Your task to perform on an android device: Empty the shopping cart on bestbuy. Add amazon basics triple a to the cart on bestbuy, then select checkout. Image 0: 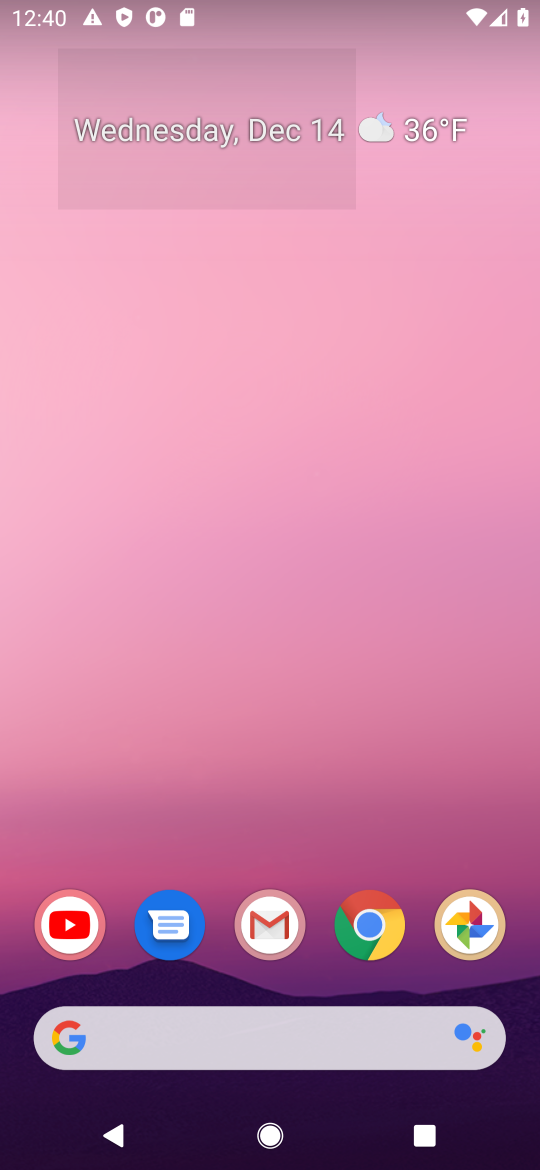
Step 0: press home button
Your task to perform on an android device: Empty the shopping cart on bestbuy. Add amazon basics triple a to the cart on bestbuy, then select checkout. Image 1: 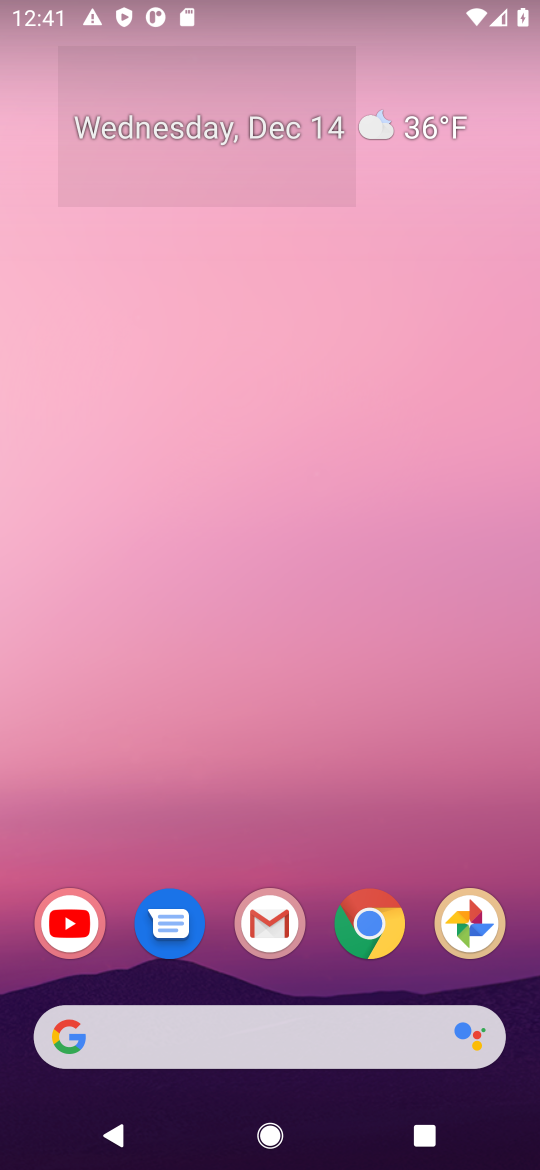
Step 1: click (336, 942)
Your task to perform on an android device: Empty the shopping cart on bestbuy. Add amazon basics triple a to the cart on bestbuy, then select checkout. Image 2: 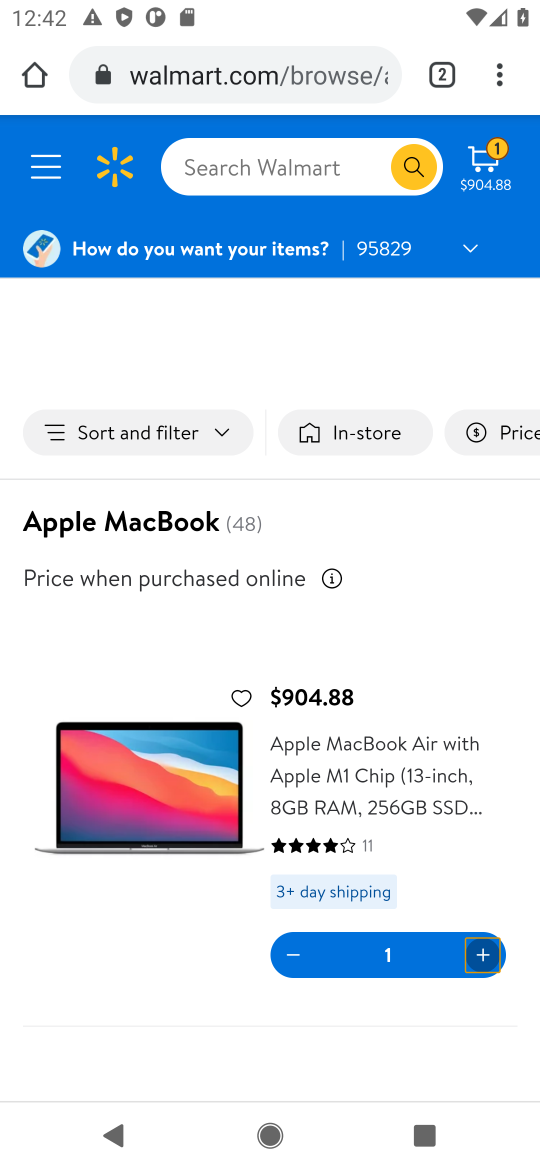
Step 2: click (220, 71)
Your task to perform on an android device: Empty the shopping cart on bestbuy. Add amazon basics triple a to the cart on bestbuy, then select checkout. Image 3: 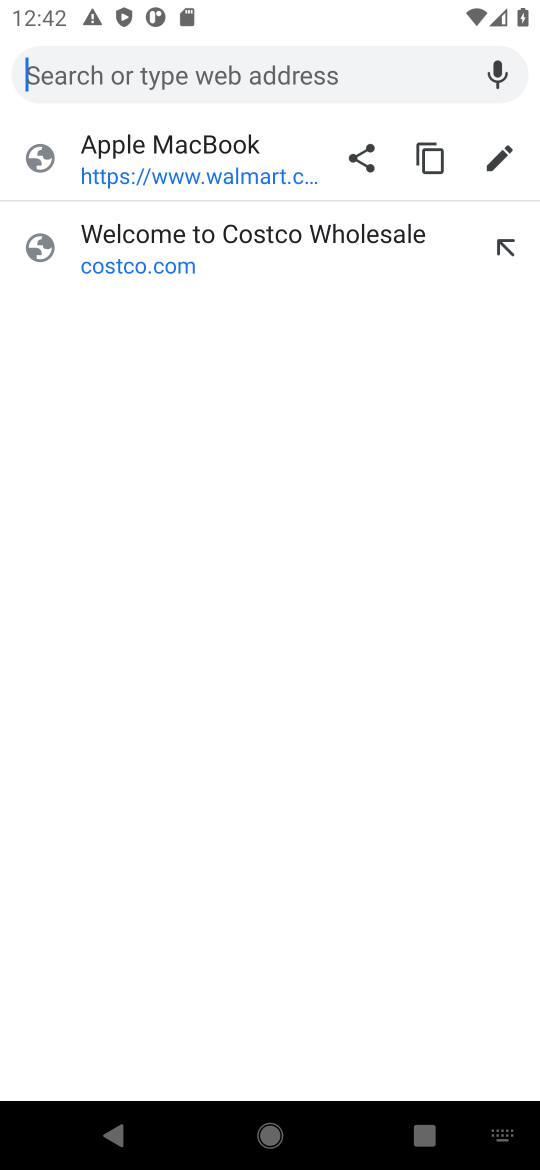
Step 3: type "bestbuy"
Your task to perform on an android device: Empty the shopping cart on bestbuy. Add amazon basics triple a to the cart on bestbuy, then select checkout. Image 4: 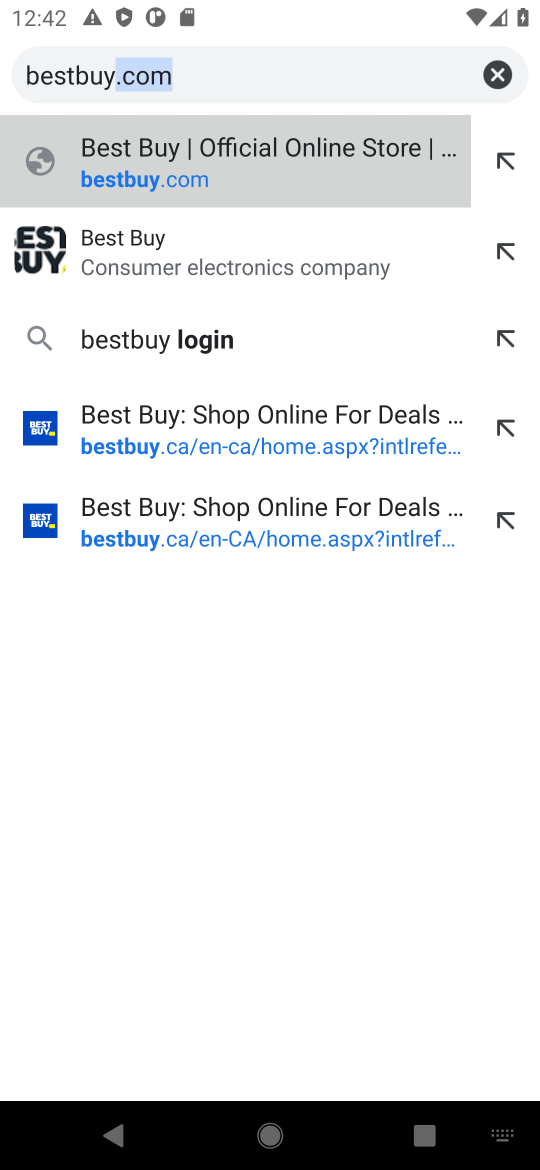
Step 4: click (163, 187)
Your task to perform on an android device: Empty the shopping cart on bestbuy. Add amazon basics triple a to the cart on bestbuy, then select checkout. Image 5: 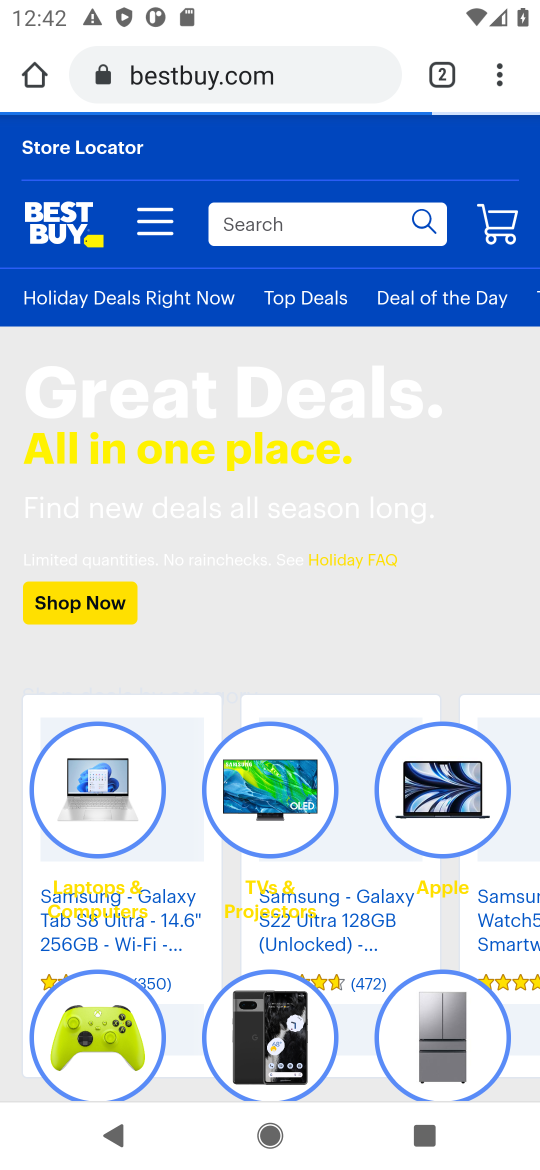
Step 5: click (265, 220)
Your task to perform on an android device: Empty the shopping cart on bestbuy. Add amazon basics triple a to the cart on bestbuy, then select checkout. Image 6: 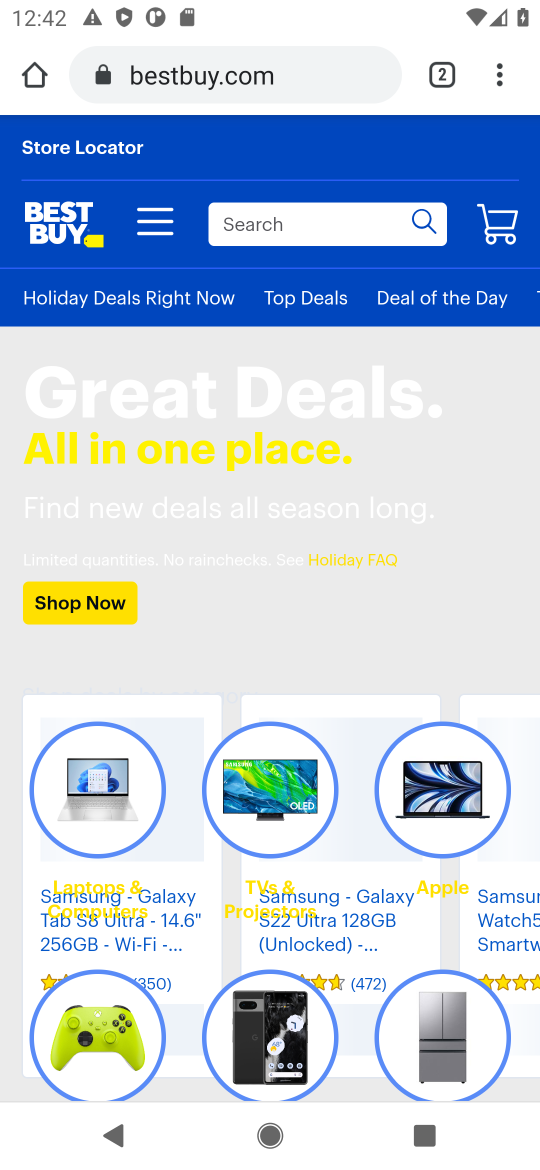
Step 6: click (265, 220)
Your task to perform on an android device: Empty the shopping cart on bestbuy. Add amazon basics triple a to the cart on bestbuy, then select checkout. Image 7: 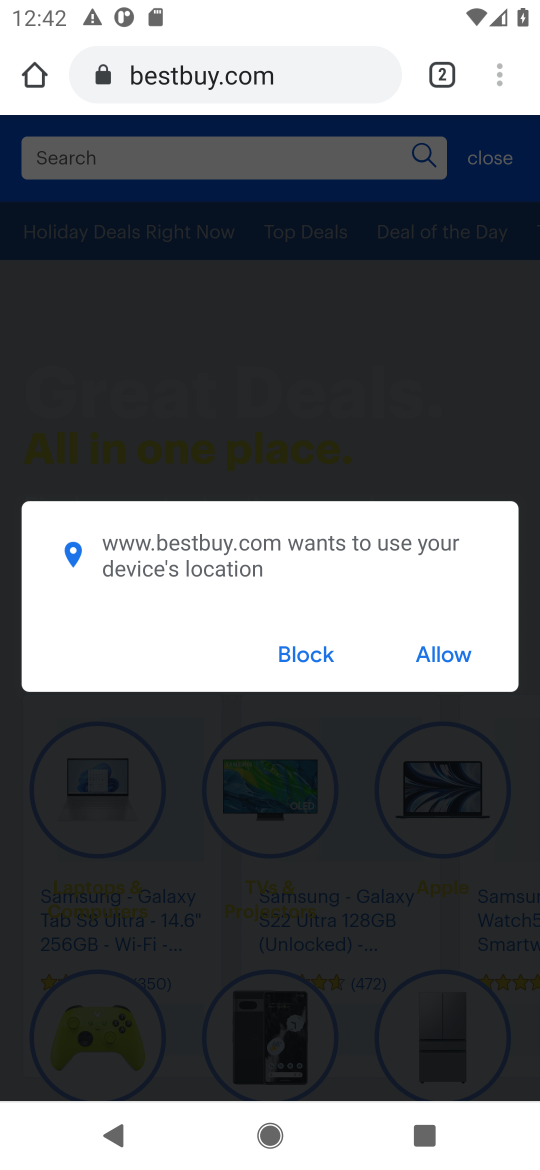
Step 7: click (457, 663)
Your task to perform on an android device: Empty the shopping cart on bestbuy. Add amazon basics triple a to the cart on bestbuy, then select checkout. Image 8: 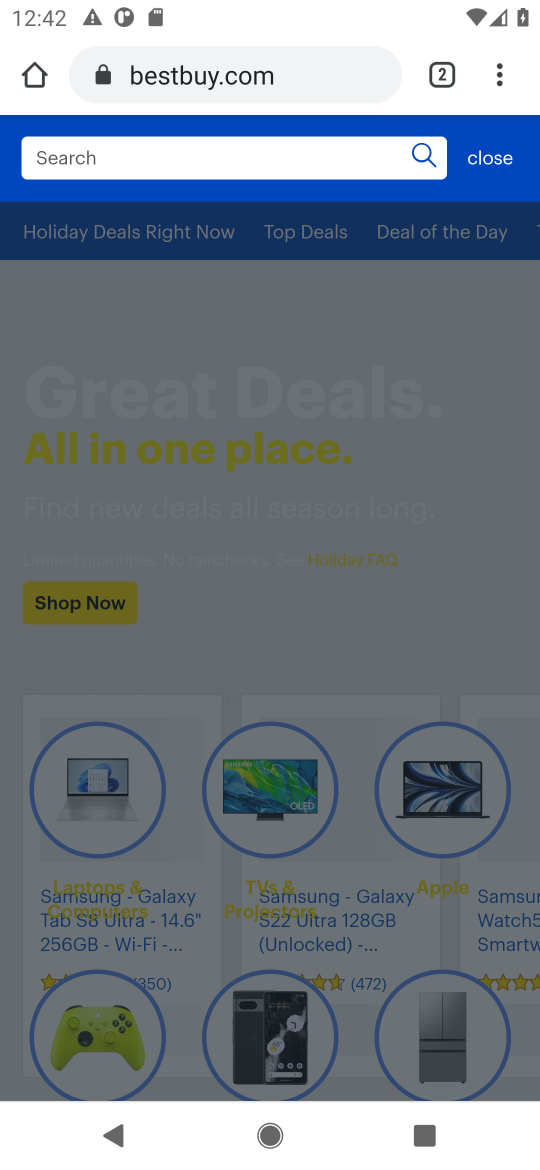
Step 8: click (60, 154)
Your task to perform on an android device: Empty the shopping cart on bestbuy. Add amazon basics triple a to the cart on bestbuy, then select checkout. Image 9: 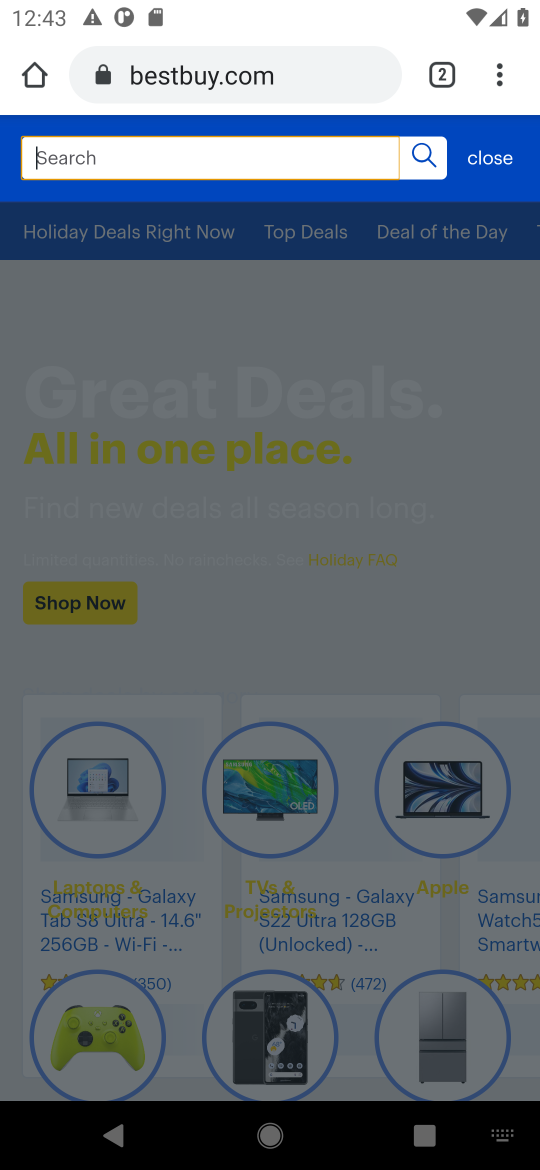
Step 9: type "amazon basic triple a"
Your task to perform on an android device: Empty the shopping cart on bestbuy. Add amazon basics triple a to the cart on bestbuy, then select checkout. Image 10: 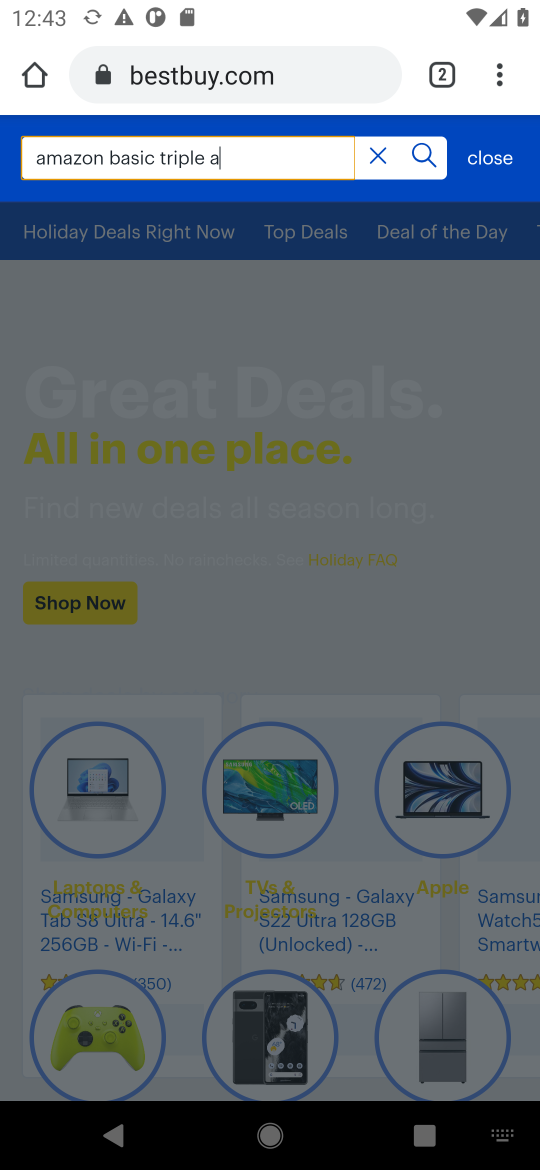
Step 10: click (429, 164)
Your task to perform on an android device: Empty the shopping cart on bestbuy. Add amazon basics triple a to the cart on bestbuy, then select checkout. Image 11: 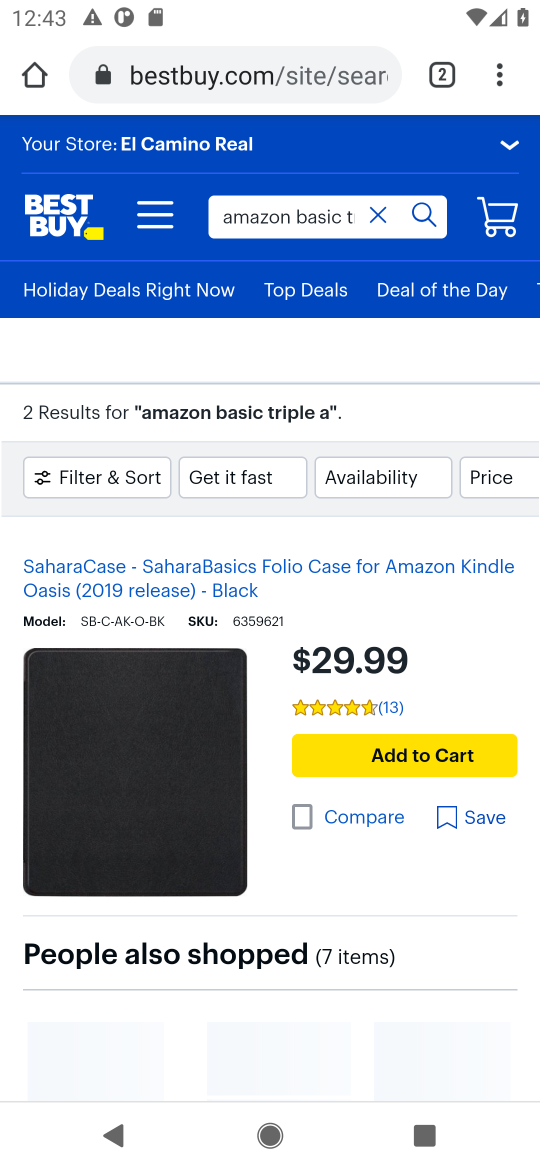
Step 11: click (271, 1083)
Your task to perform on an android device: Empty the shopping cart on bestbuy. Add amazon basics triple a to the cart on bestbuy, then select checkout. Image 12: 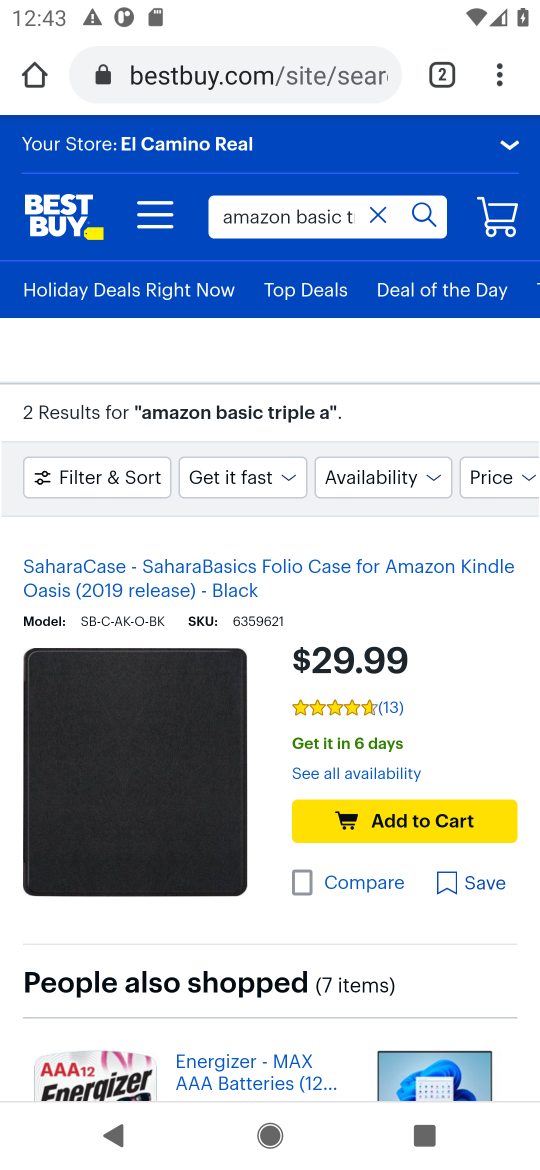
Step 12: drag from (271, 1083) to (321, 616)
Your task to perform on an android device: Empty the shopping cart on bestbuy. Add amazon basics triple a to the cart on bestbuy, then select checkout. Image 13: 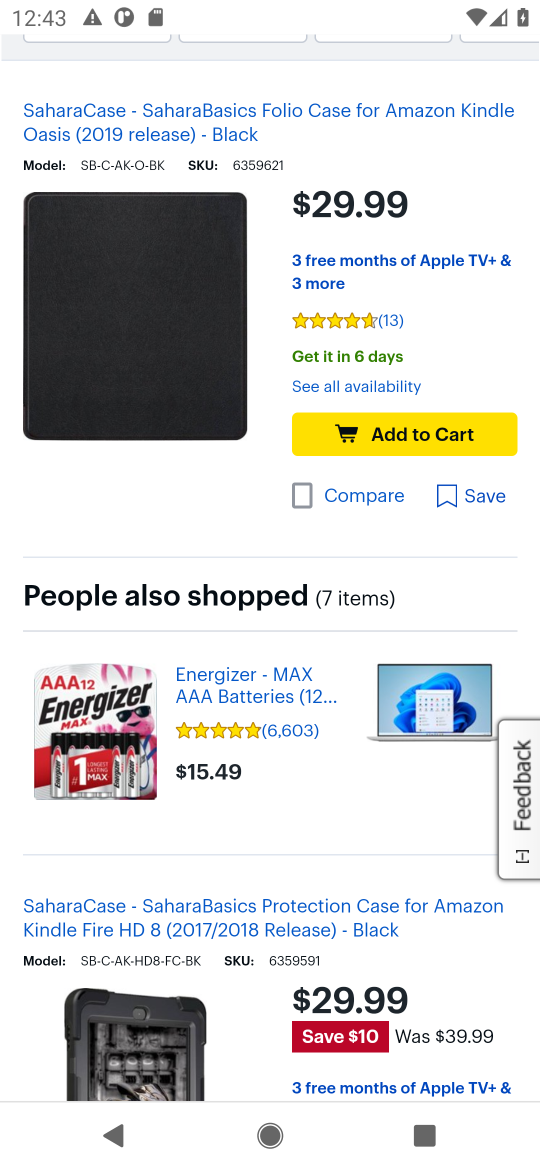
Step 13: drag from (252, 978) to (339, 580)
Your task to perform on an android device: Empty the shopping cart on bestbuy. Add amazon basics triple a to the cart on bestbuy, then select checkout. Image 14: 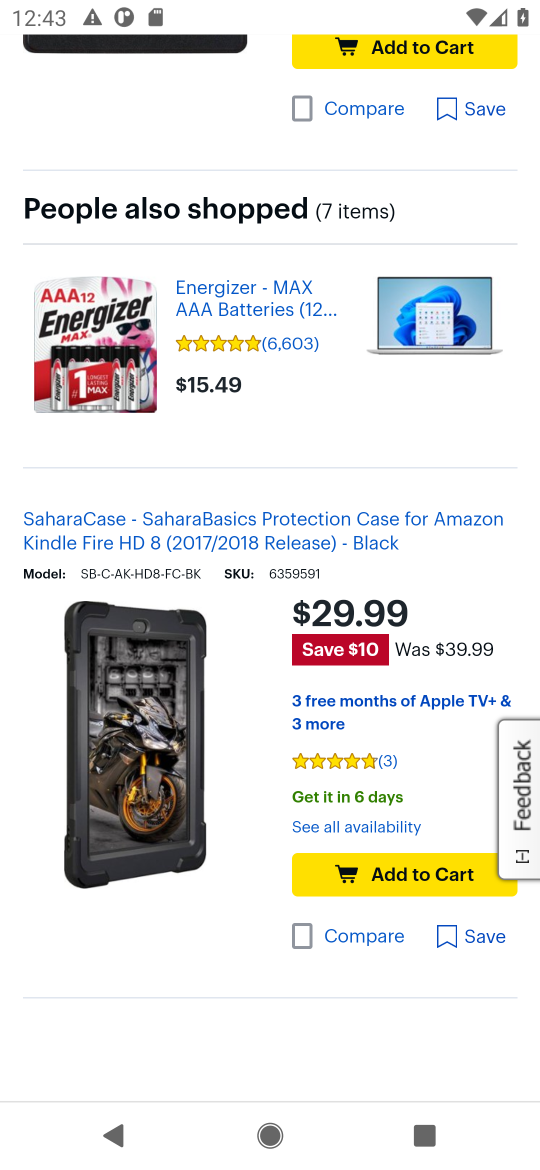
Step 14: click (226, 311)
Your task to perform on an android device: Empty the shopping cart on bestbuy. Add amazon basics triple a to the cart on bestbuy, then select checkout. Image 15: 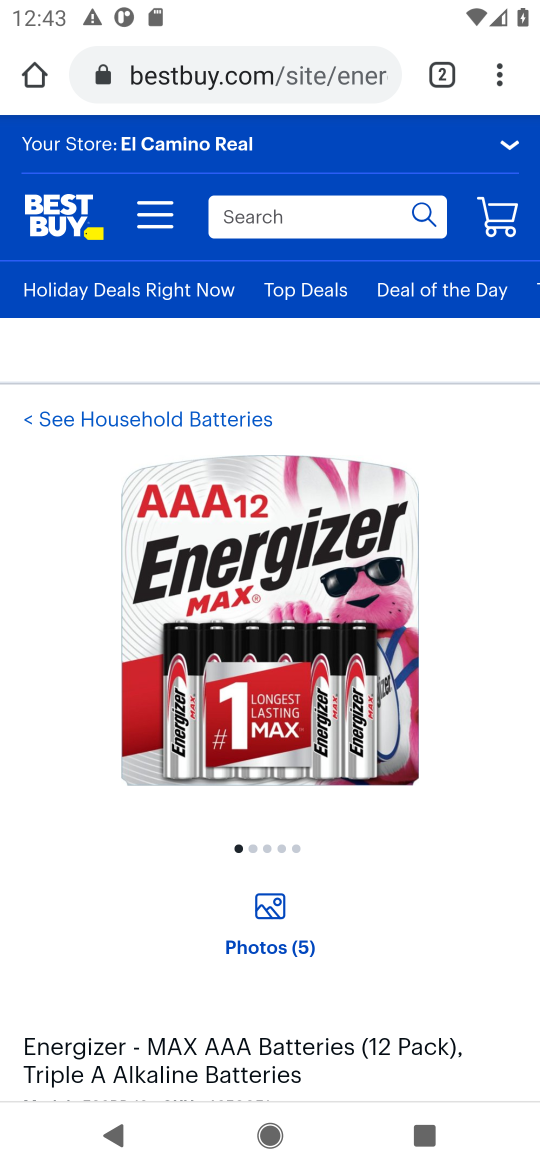
Step 15: drag from (377, 778) to (353, 569)
Your task to perform on an android device: Empty the shopping cart on bestbuy. Add amazon basics triple a to the cart on bestbuy, then select checkout. Image 16: 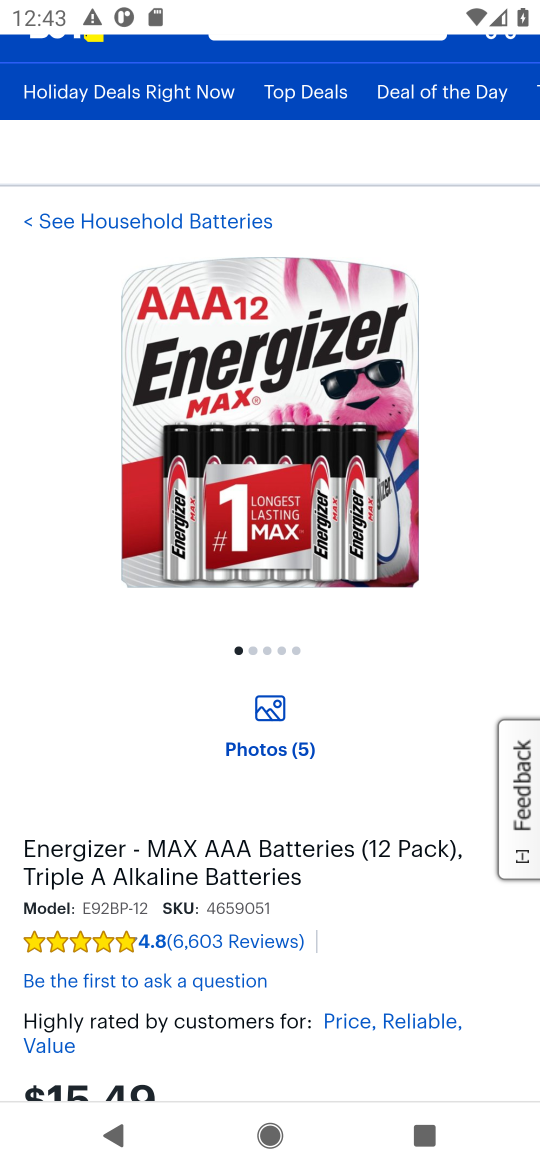
Step 16: drag from (321, 1037) to (291, 502)
Your task to perform on an android device: Empty the shopping cart on bestbuy. Add amazon basics triple a to the cart on bestbuy, then select checkout. Image 17: 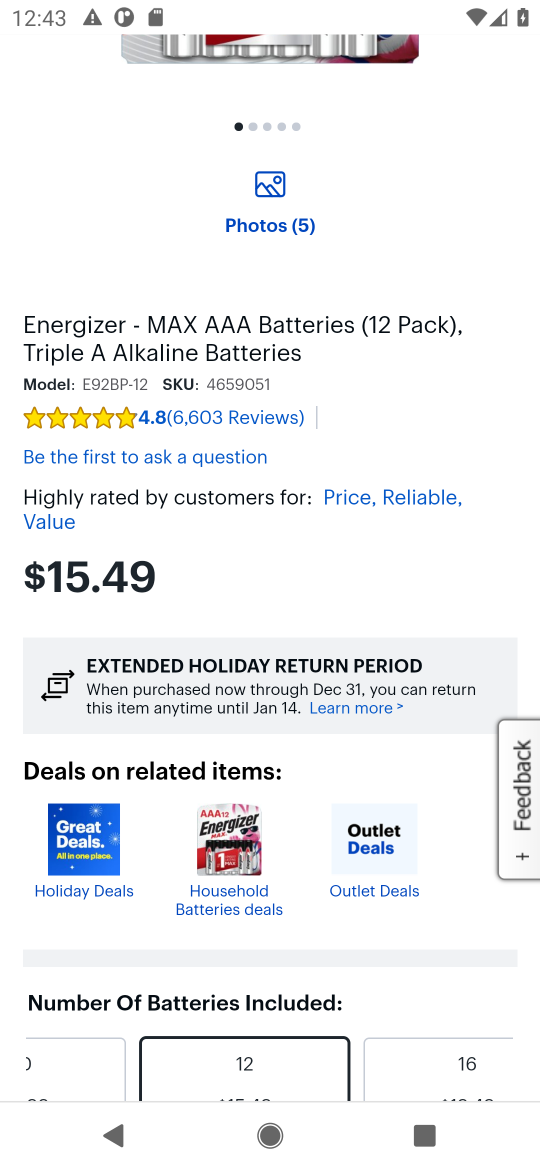
Step 17: drag from (390, 1010) to (369, 828)
Your task to perform on an android device: Empty the shopping cart on bestbuy. Add amazon basics triple a to the cart on bestbuy, then select checkout. Image 18: 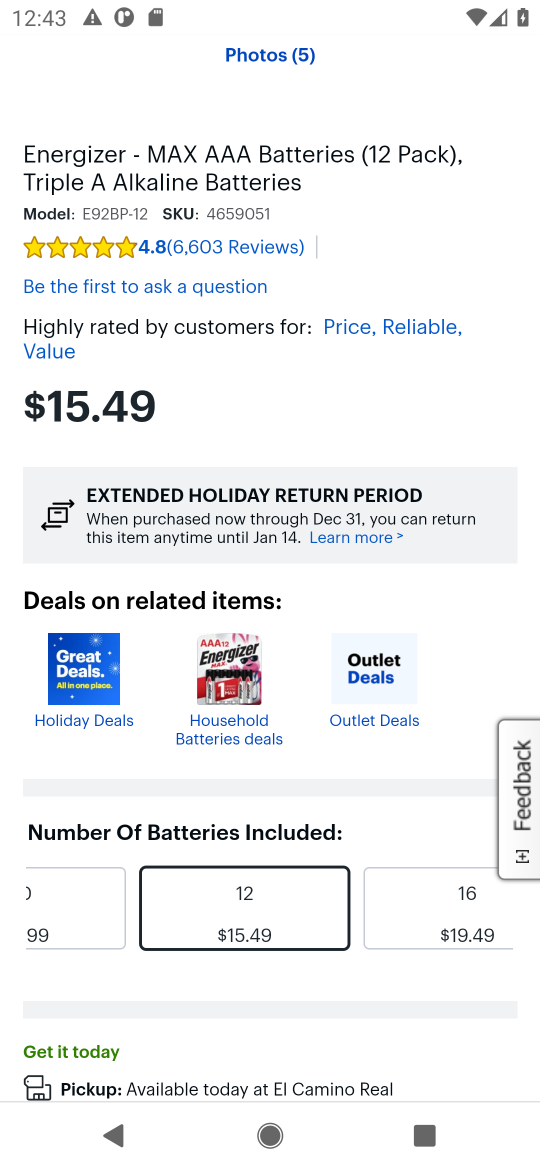
Step 18: drag from (340, 1022) to (351, 732)
Your task to perform on an android device: Empty the shopping cart on bestbuy. Add amazon basics triple a to the cart on bestbuy, then select checkout. Image 19: 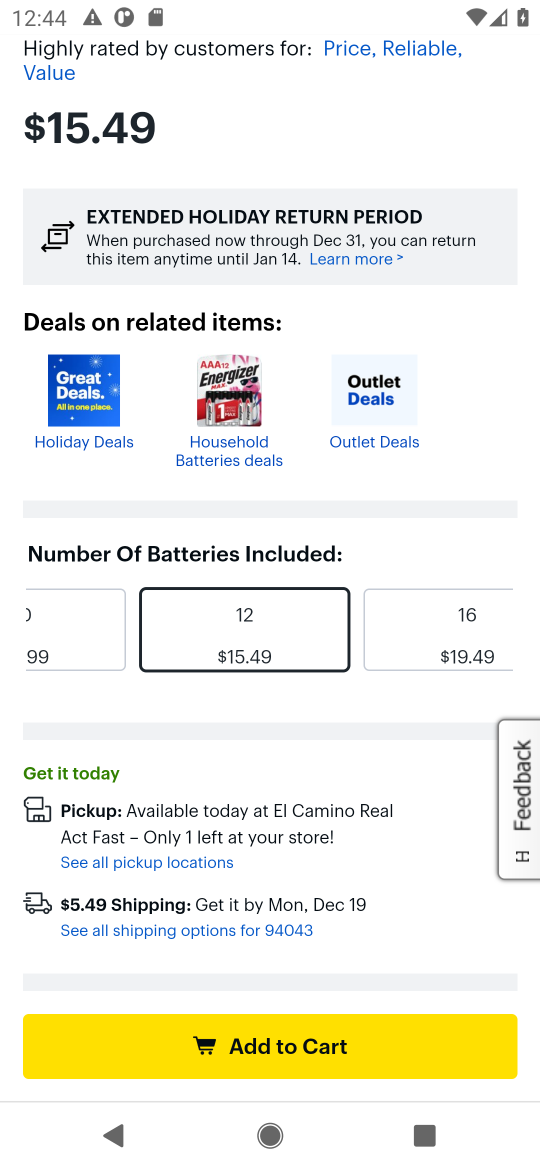
Step 19: click (351, 1039)
Your task to perform on an android device: Empty the shopping cart on bestbuy. Add amazon basics triple a to the cart on bestbuy, then select checkout. Image 20: 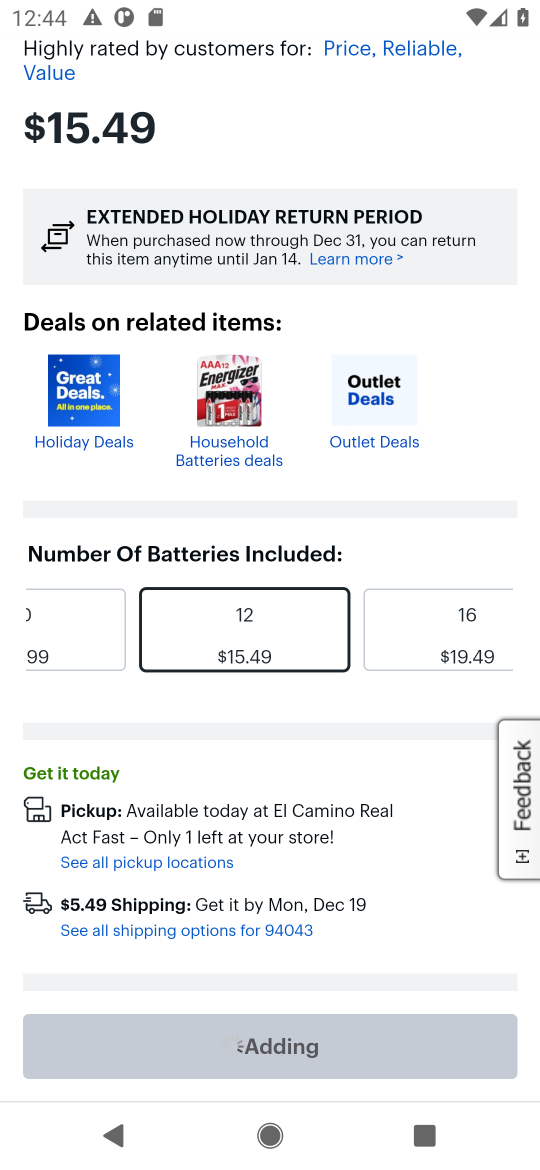
Step 20: task complete